Your task to perform on an android device: open sync settings in chrome Image 0: 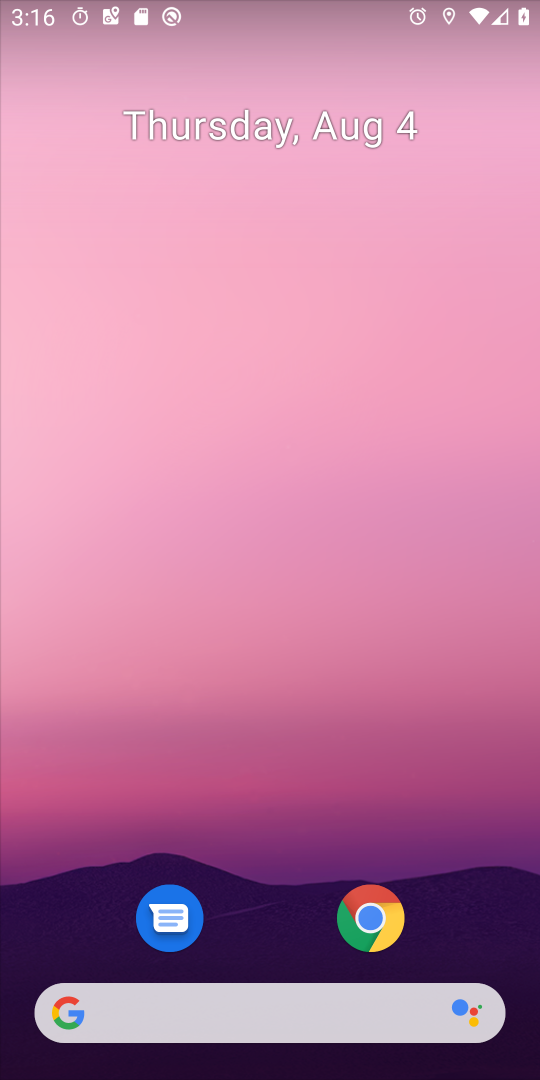
Step 0: click (395, 922)
Your task to perform on an android device: open sync settings in chrome Image 1: 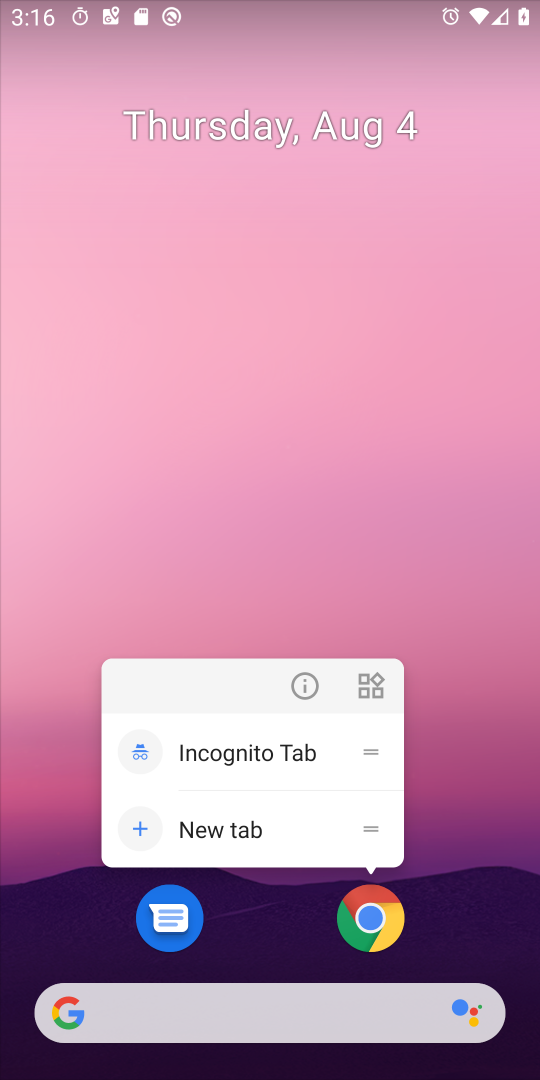
Step 1: click (395, 922)
Your task to perform on an android device: open sync settings in chrome Image 2: 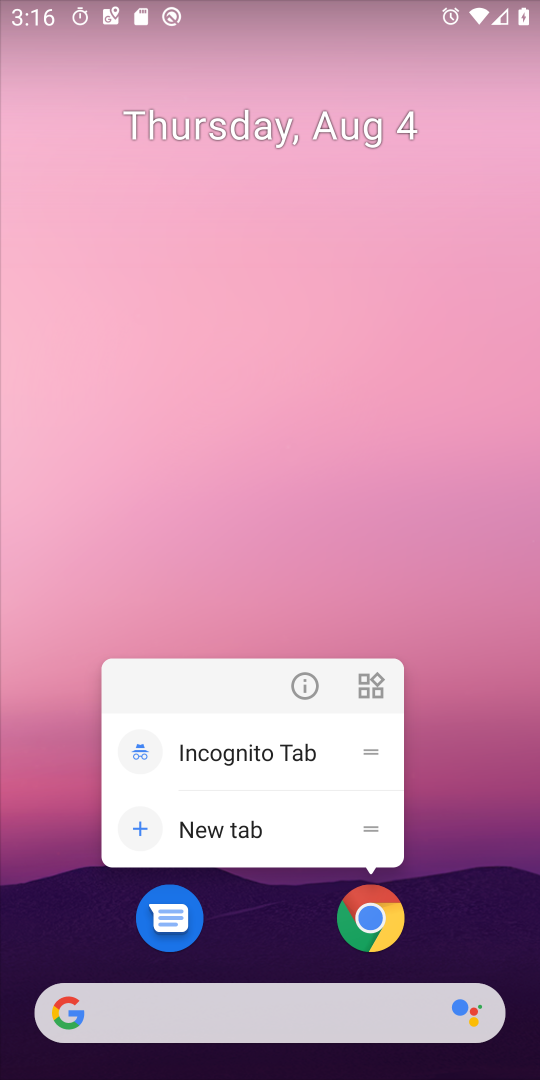
Step 2: click (395, 922)
Your task to perform on an android device: open sync settings in chrome Image 3: 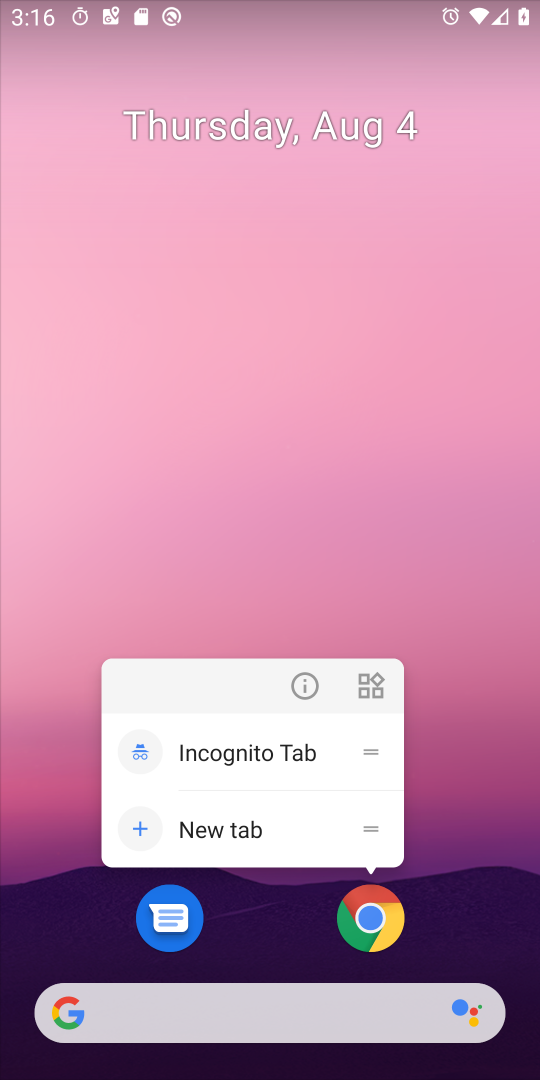
Step 3: click (395, 922)
Your task to perform on an android device: open sync settings in chrome Image 4: 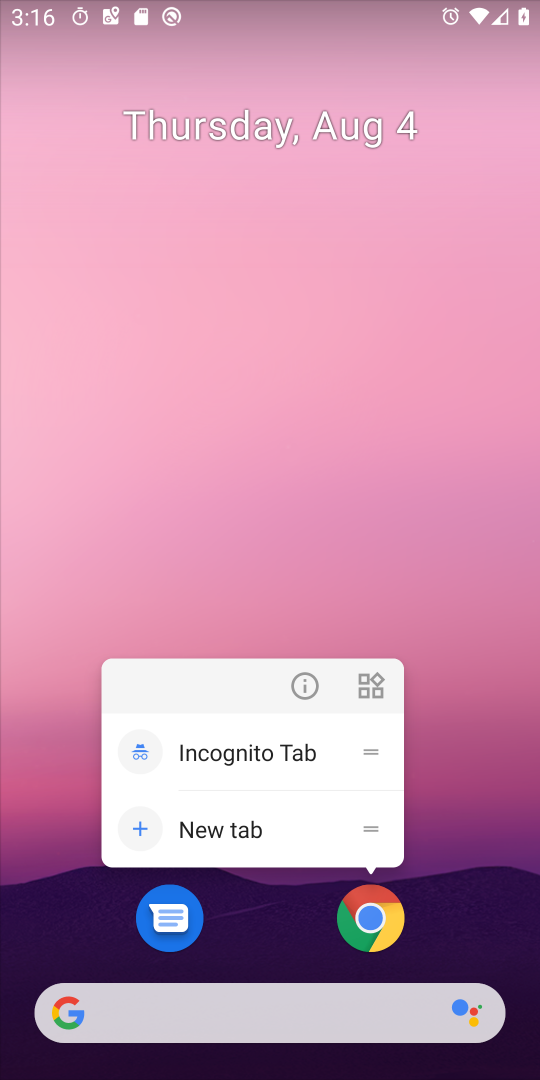
Step 4: click (395, 922)
Your task to perform on an android device: open sync settings in chrome Image 5: 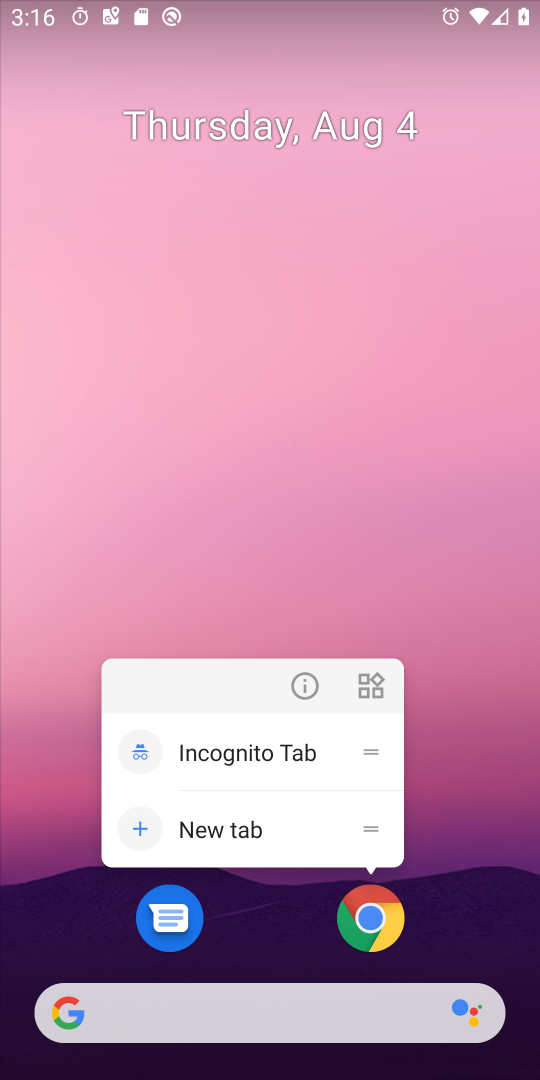
Step 5: click (345, 928)
Your task to perform on an android device: open sync settings in chrome Image 6: 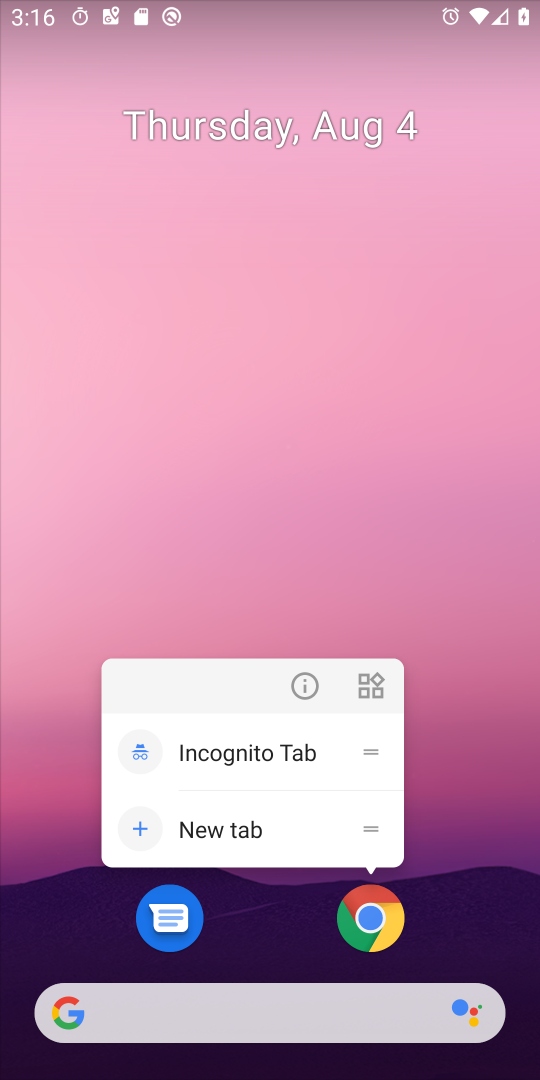
Step 6: click (354, 911)
Your task to perform on an android device: open sync settings in chrome Image 7: 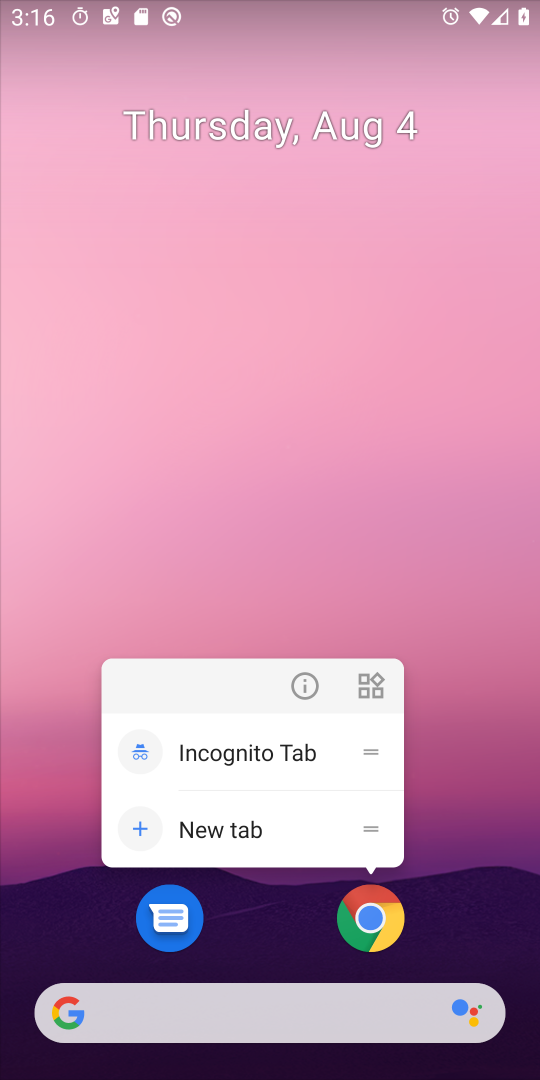
Step 7: click (354, 911)
Your task to perform on an android device: open sync settings in chrome Image 8: 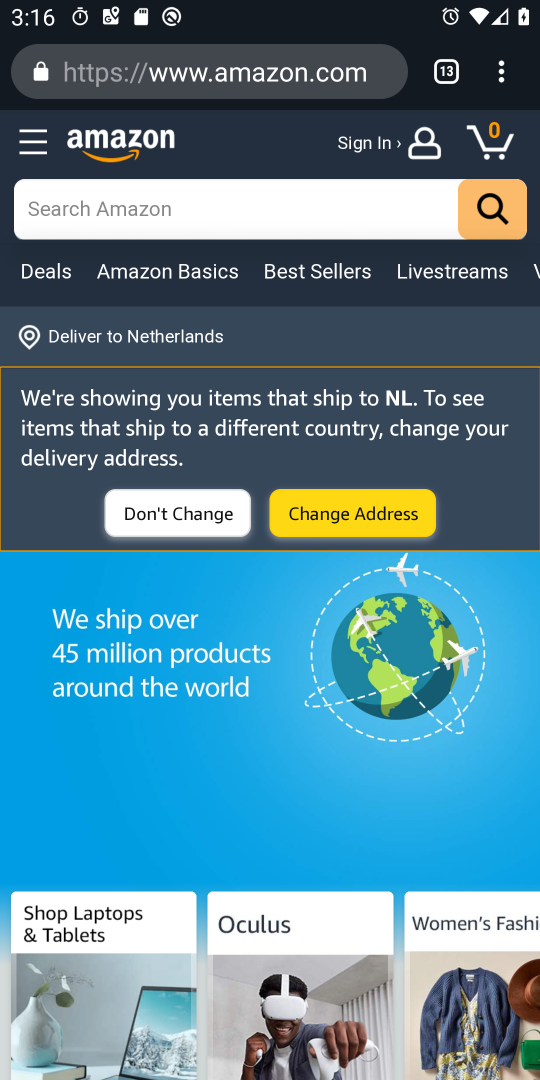
Step 8: click (508, 82)
Your task to perform on an android device: open sync settings in chrome Image 9: 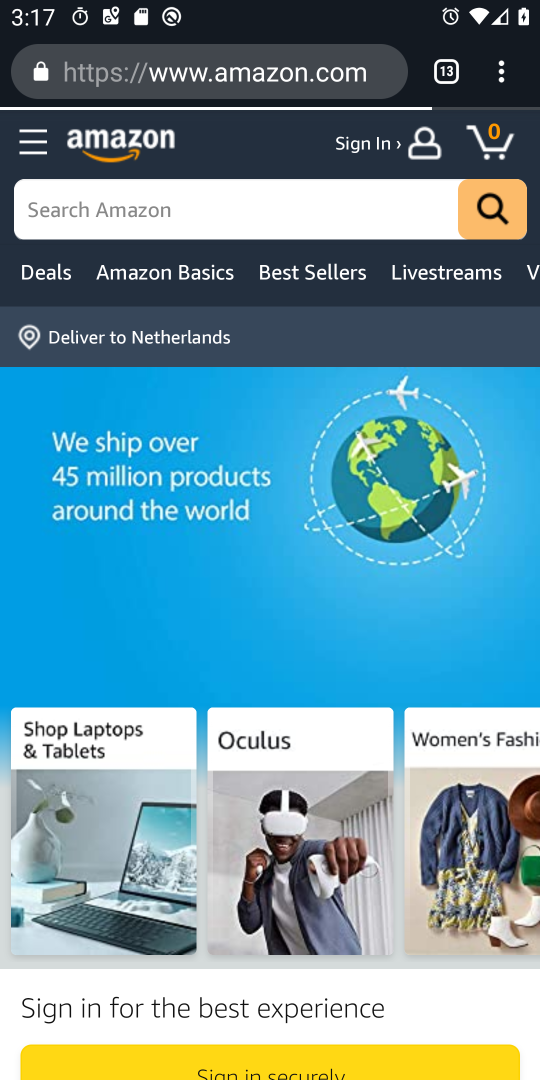
Step 9: drag from (494, 81) to (271, 839)
Your task to perform on an android device: open sync settings in chrome Image 10: 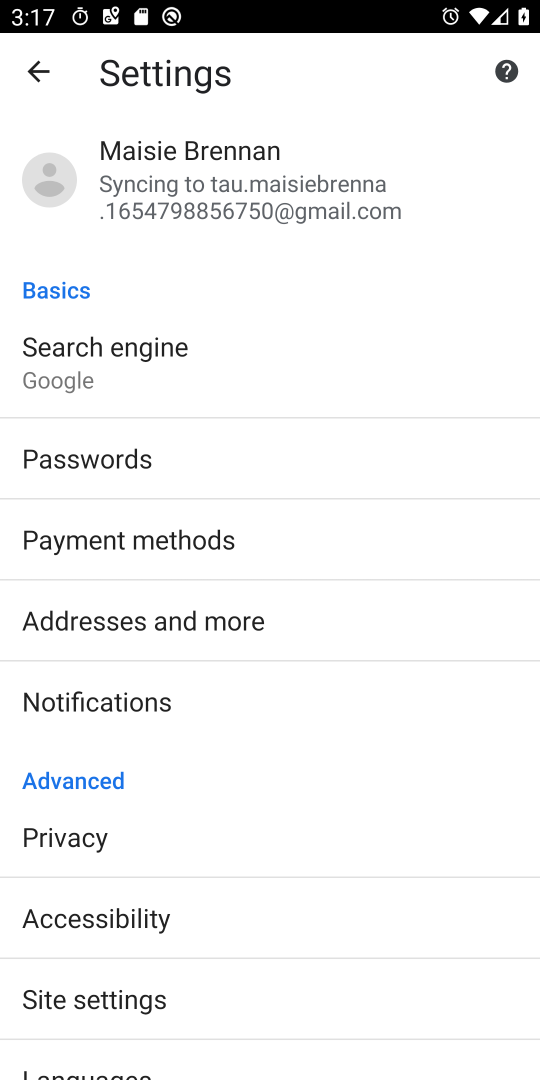
Step 10: click (201, 183)
Your task to perform on an android device: open sync settings in chrome Image 11: 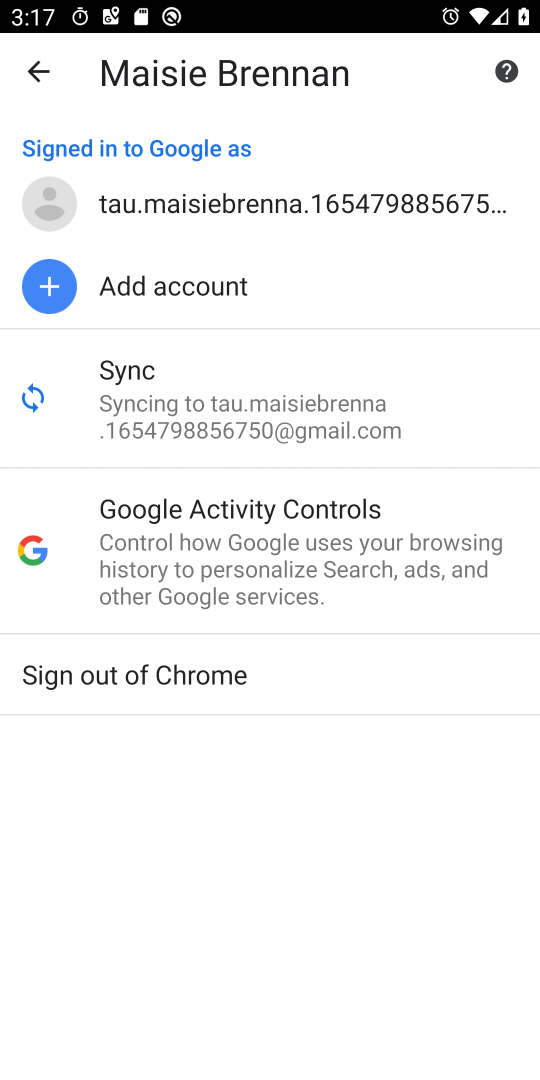
Step 11: click (174, 366)
Your task to perform on an android device: open sync settings in chrome Image 12: 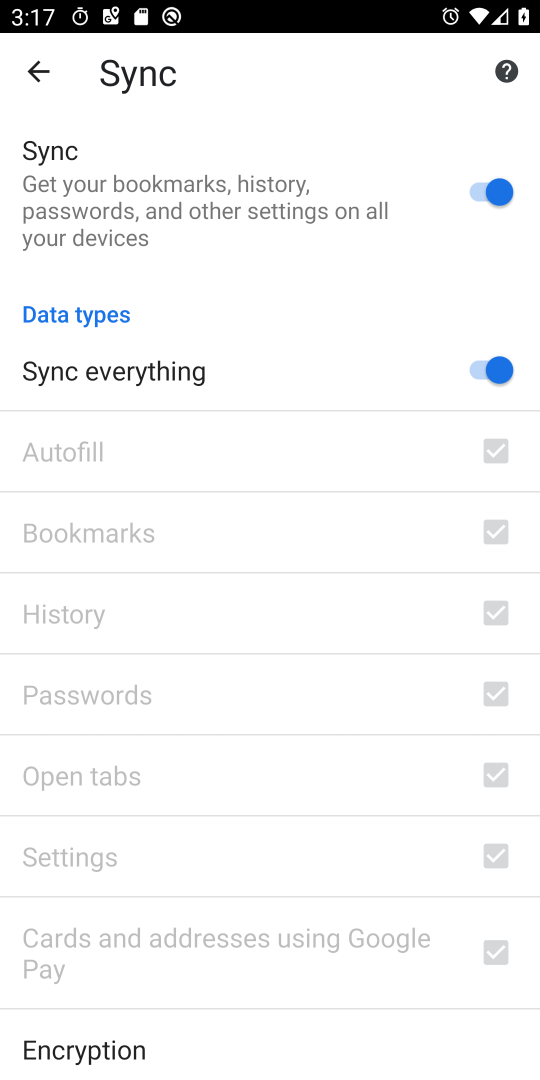
Step 12: task complete